Your task to perform on an android device: Is it going to rain tomorrow? Image 0: 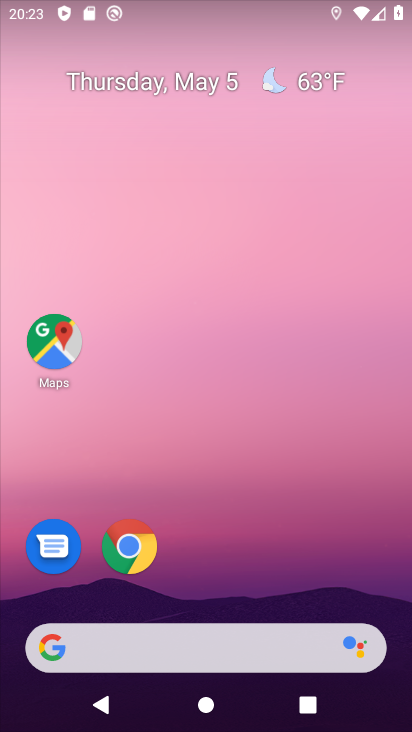
Step 0: click (267, 572)
Your task to perform on an android device: Is it going to rain tomorrow? Image 1: 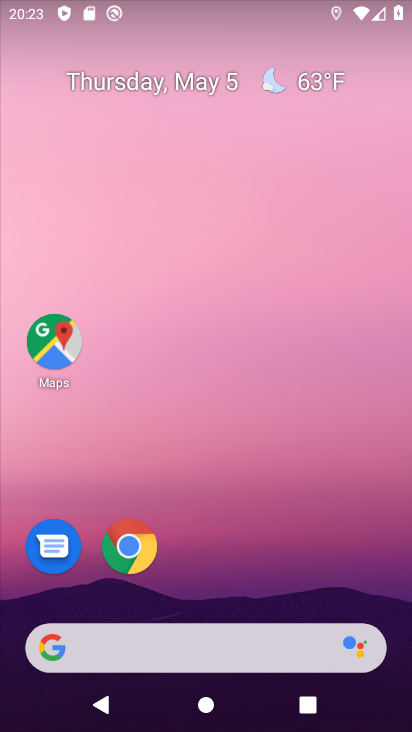
Step 1: drag from (11, 166) to (398, 274)
Your task to perform on an android device: Is it going to rain tomorrow? Image 2: 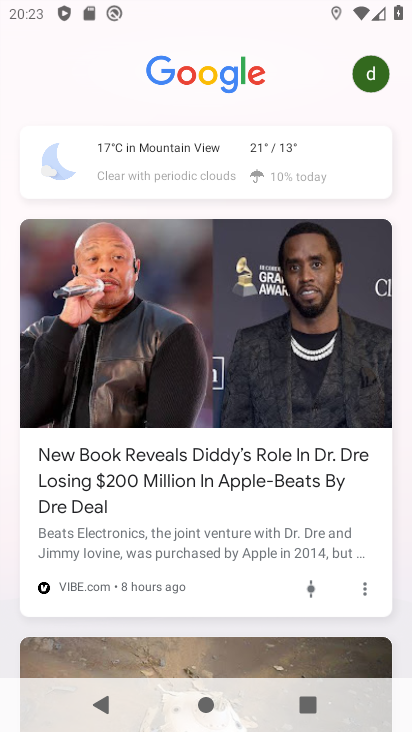
Step 2: click (259, 158)
Your task to perform on an android device: Is it going to rain tomorrow? Image 3: 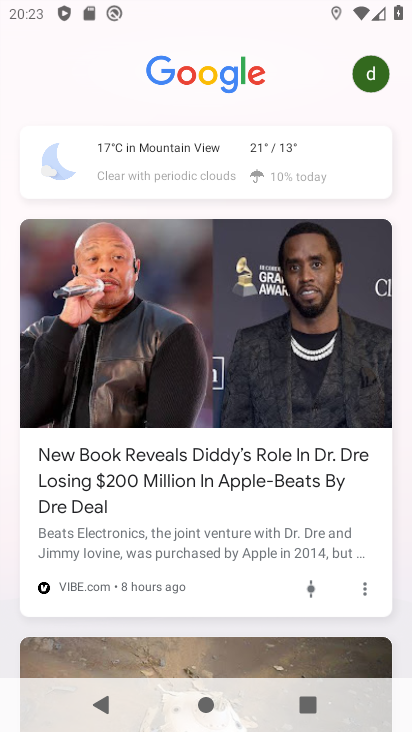
Step 3: click (262, 157)
Your task to perform on an android device: Is it going to rain tomorrow? Image 4: 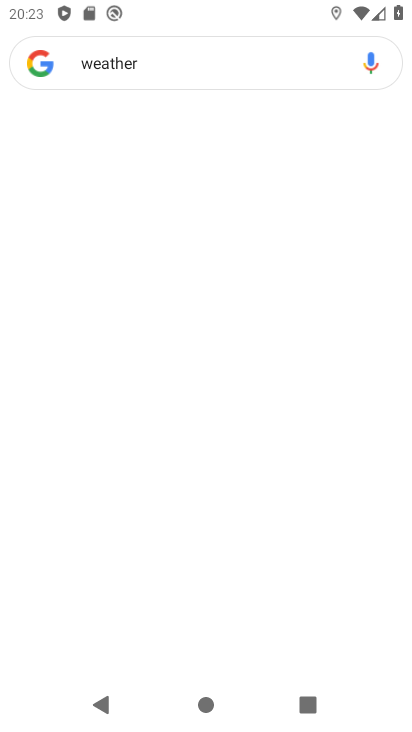
Step 4: click (262, 157)
Your task to perform on an android device: Is it going to rain tomorrow? Image 5: 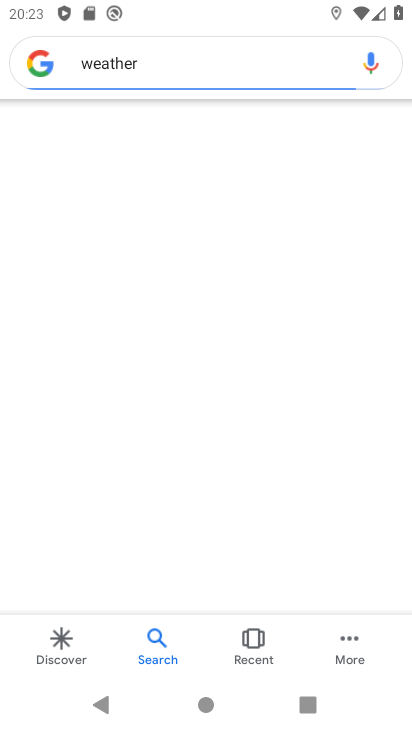
Step 5: click (262, 157)
Your task to perform on an android device: Is it going to rain tomorrow? Image 6: 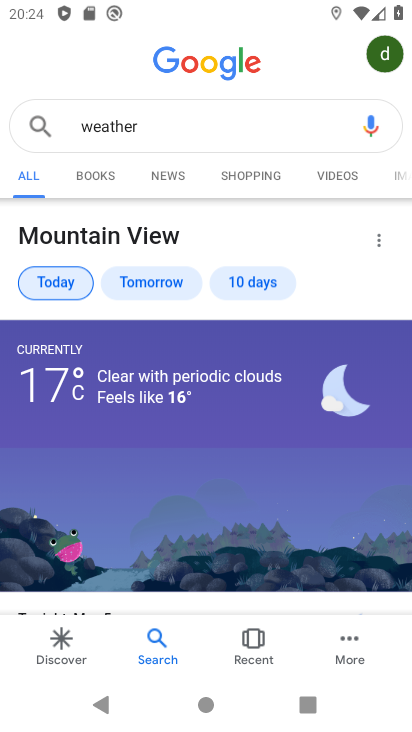
Step 6: click (143, 286)
Your task to perform on an android device: Is it going to rain tomorrow? Image 7: 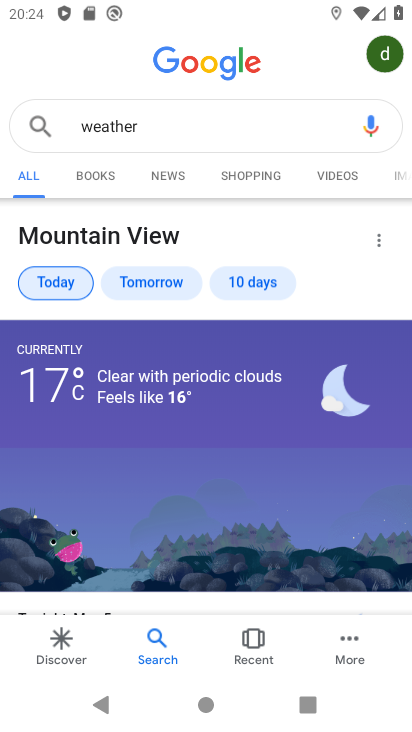
Step 7: click (145, 285)
Your task to perform on an android device: Is it going to rain tomorrow? Image 8: 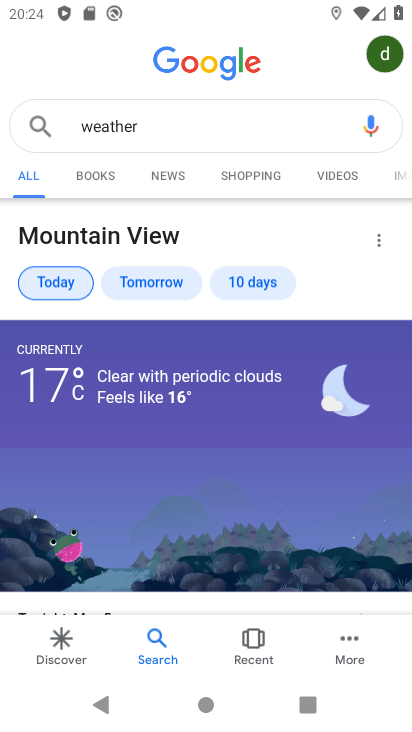
Step 8: task complete